Your task to perform on an android device: Show me popular videos on Youtube Image 0: 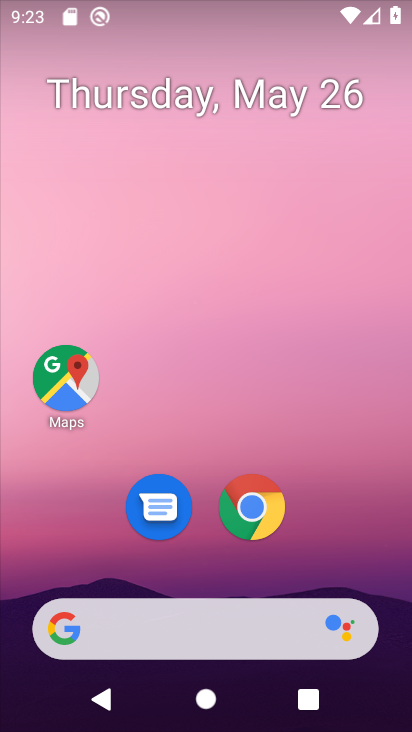
Step 0: drag from (382, 592) to (384, 209)
Your task to perform on an android device: Show me popular videos on Youtube Image 1: 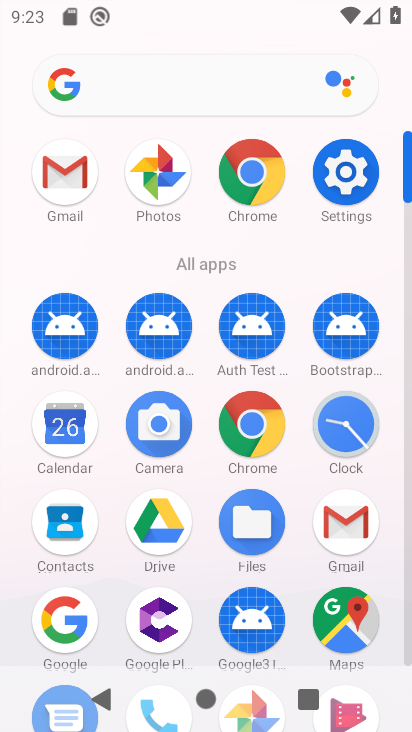
Step 1: drag from (295, 575) to (304, 197)
Your task to perform on an android device: Show me popular videos on Youtube Image 2: 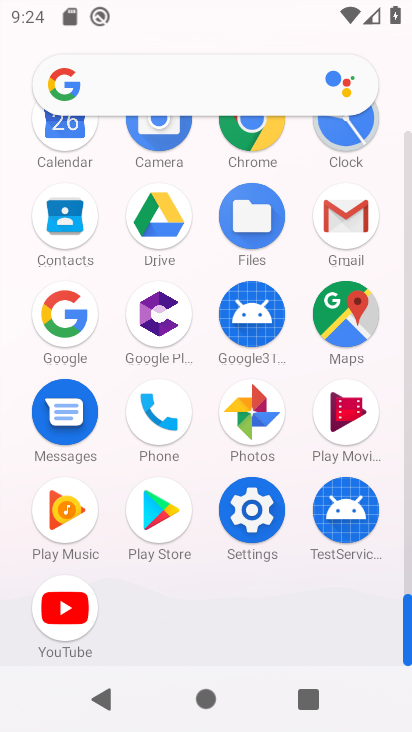
Step 2: click (71, 608)
Your task to perform on an android device: Show me popular videos on Youtube Image 3: 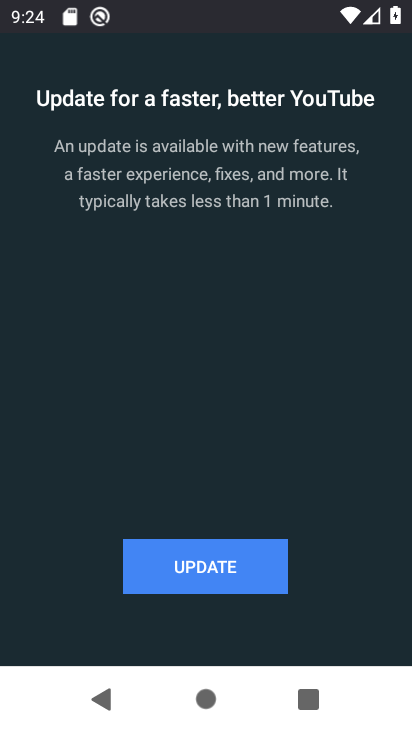
Step 3: click (273, 561)
Your task to perform on an android device: Show me popular videos on Youtube Image 4: 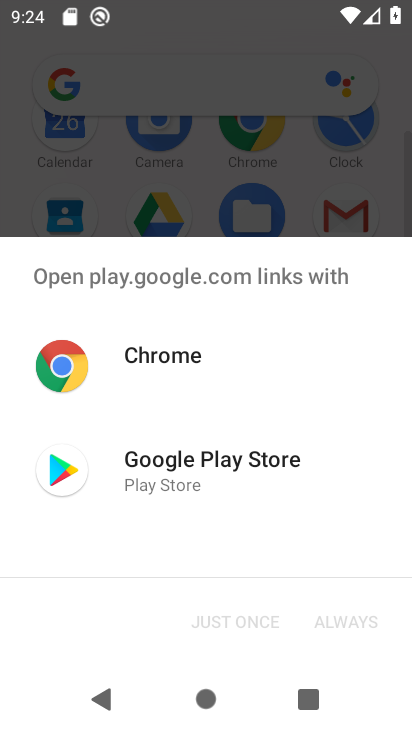
Step 4: click (221, 497)
Your task to perform on an android device: Show me popular videos on Youtube Image 5: 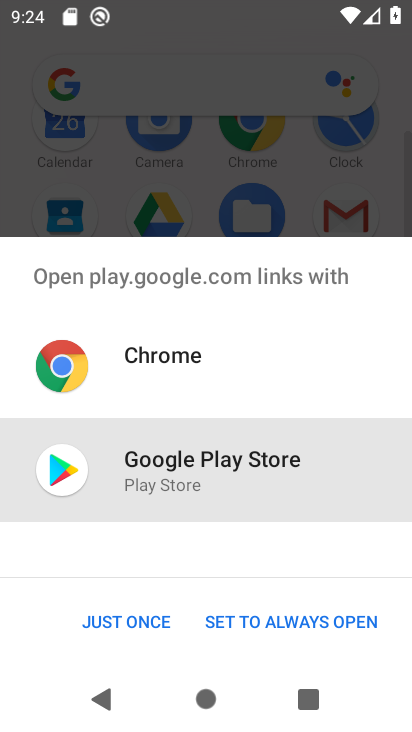
Step 5: click (138, 614)
Your task to perform on an android device: Show me popular videos on Youtube Image 6: 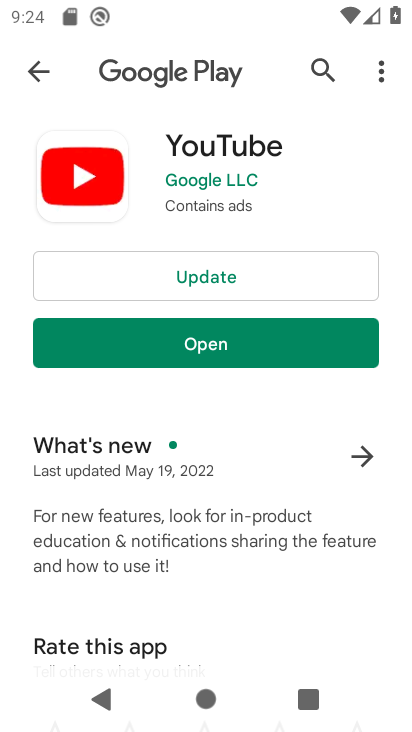
Step 6: click (274, 286)
Your task to perform on an android device: Show me popular videos on Youtube Image 7: 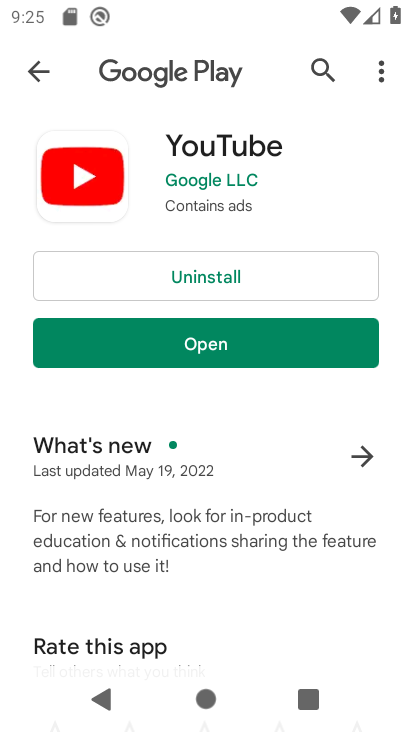
Step 7: task complete